Your task to perform on an android device: Check the weather Image 0: 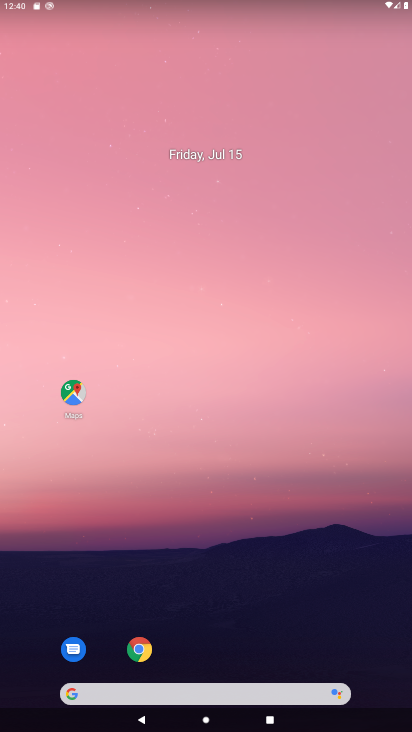
Step 0: drag from (238, 658) to (240, 266)
Your task to perform on an android device: Check the weather Image 1: 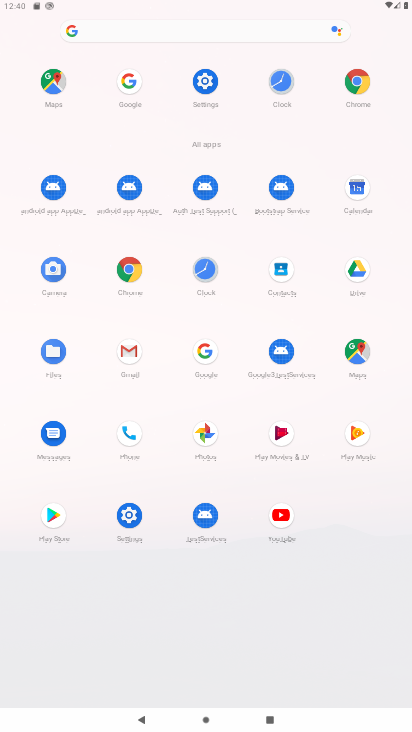
Step 1: click (355, 78)
Your task to perform on an android device: Check the weather Image 2: 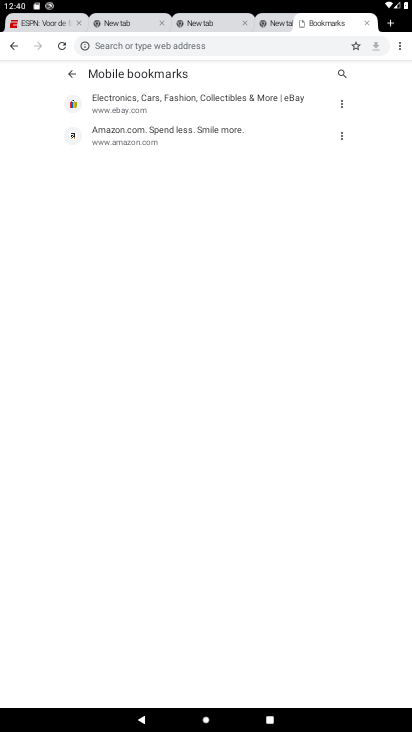
Step 2: click (368, 19)
Your task to perform on an android device: Check the weather Image 3: 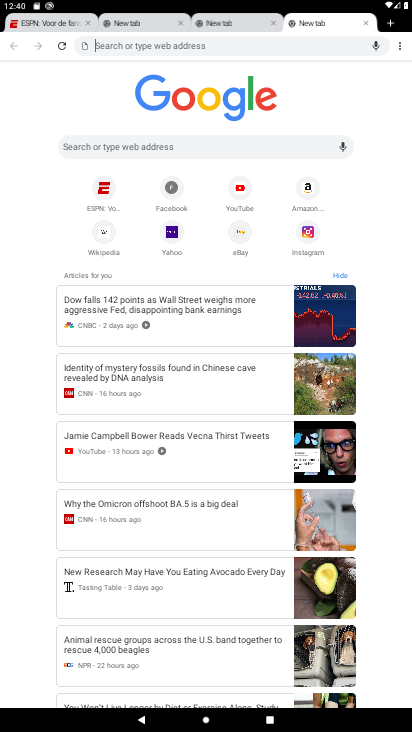
Step 3: click (167, 146)
Your task to perform on an android device: Check the weather Image 4: 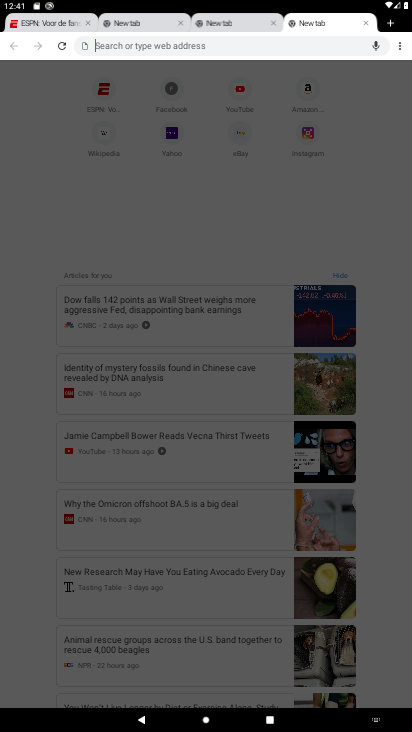
Step 4: type "Check the weather "
Your task to perform on an android device: Check the weather Image 5: 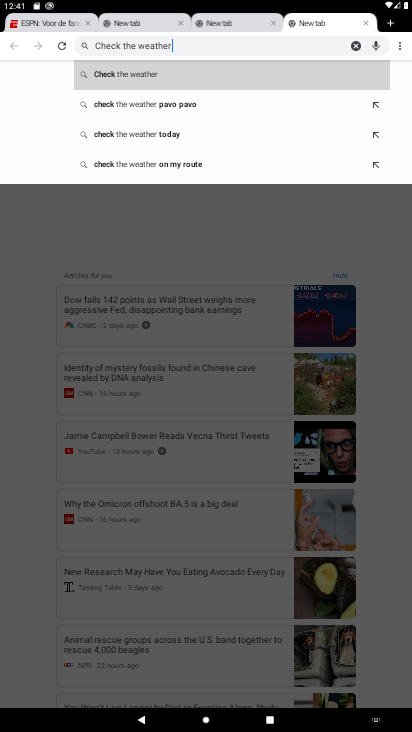
Step 5: click (127, 65)
Your task to perform on an android device: Check the weather Image 6: 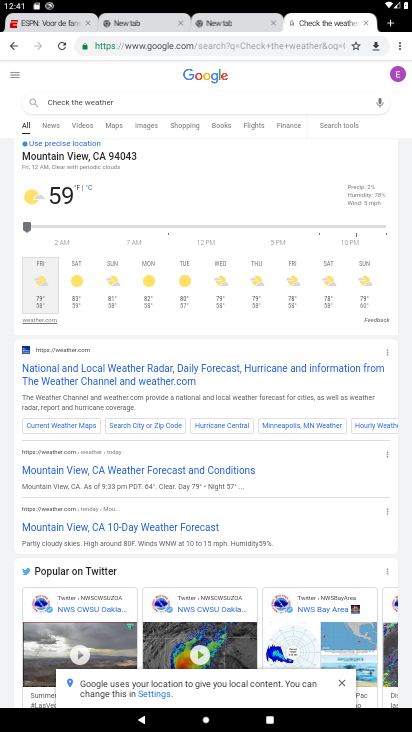
Step 6: task complete